Your task to perform on an android device: set default search engine in the chrome app Image 0: 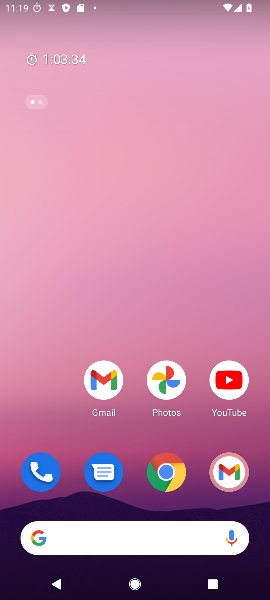
Step 0: click (161, 469)
Your task to perform on an android device: set default search engine in the chrome app Image 1: 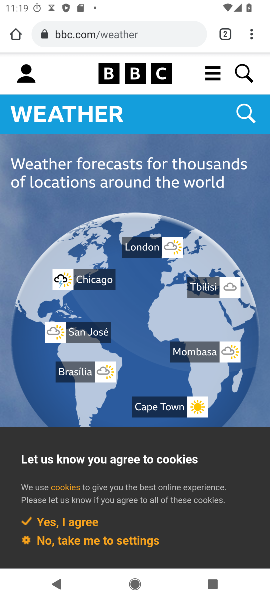
Step 1: click (247, 42)
Your task to perform on an android device: set default search engine in the chrome app Image 2: 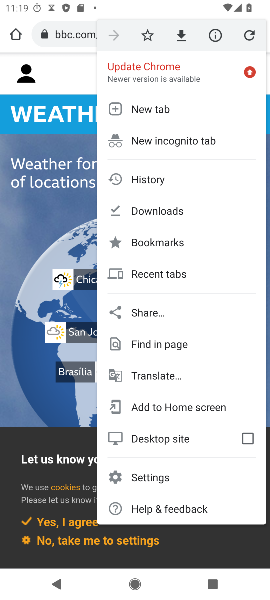
Step 2: click (160, 478)
Your task to perform on an android device: set default search engine in the chrome app Image 3: 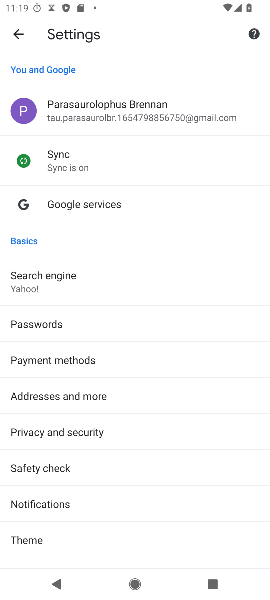
Step 3: click (93, 282)
Your task to perform on an android device: set default search engine in the chrome app Image 4: 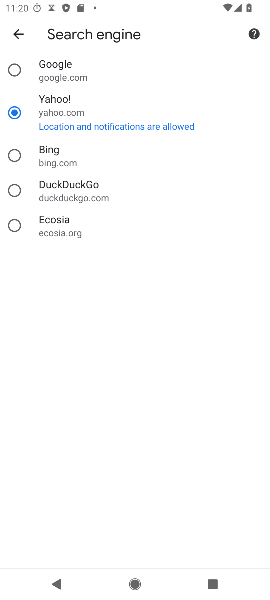
Step 4: click (62, 69)
Your task to perform on an android device: set default search engine in the chrome app Image 5: 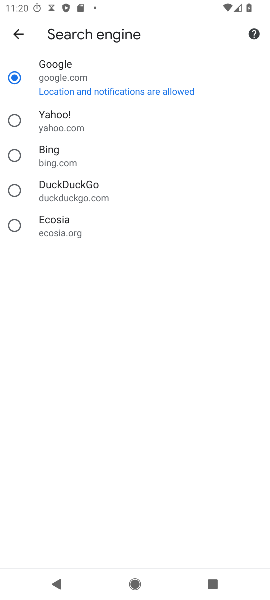
Step 5: task complete